Your task to perform on an android device: toggle sleep mode Image 0: 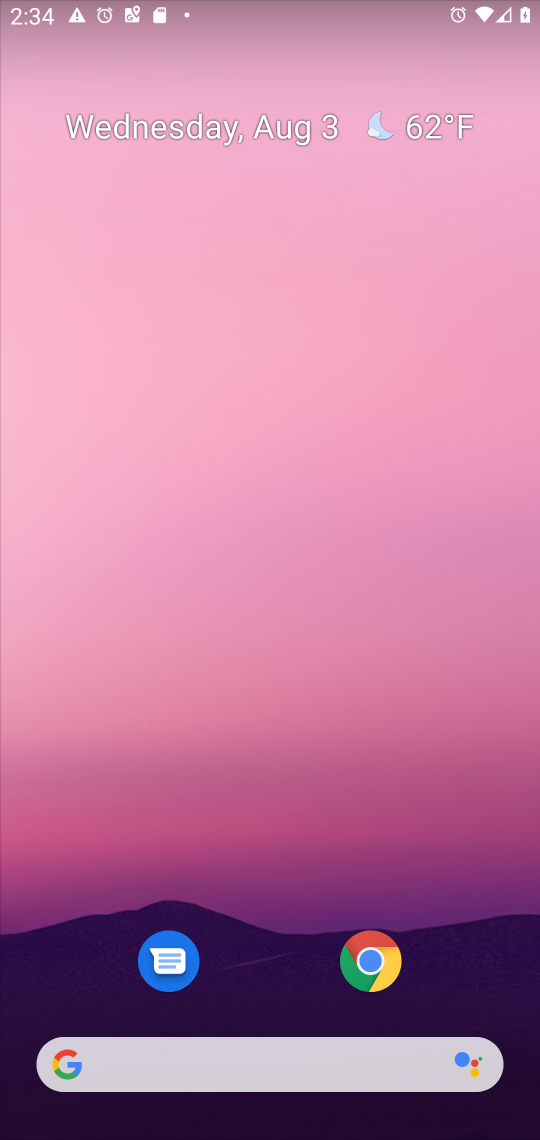
Step 0: drag from (276, 1002) to (265, 87)
Your task to perform on an android device: toggle sleep mode Image 1: 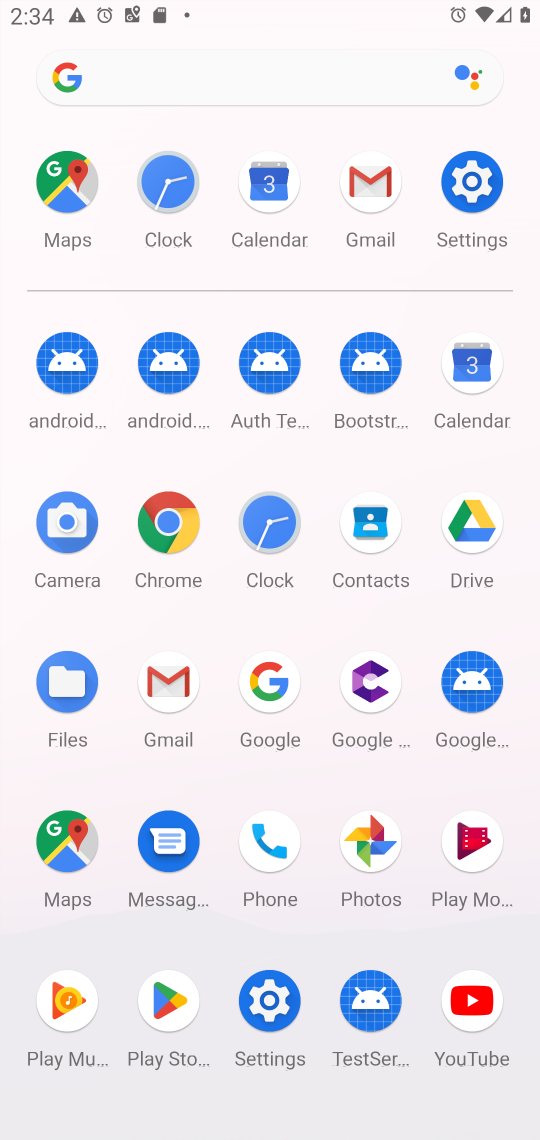
Step 1: click (466, 178)
Your task to perform on an android device: toggle sleep mode Image 2: 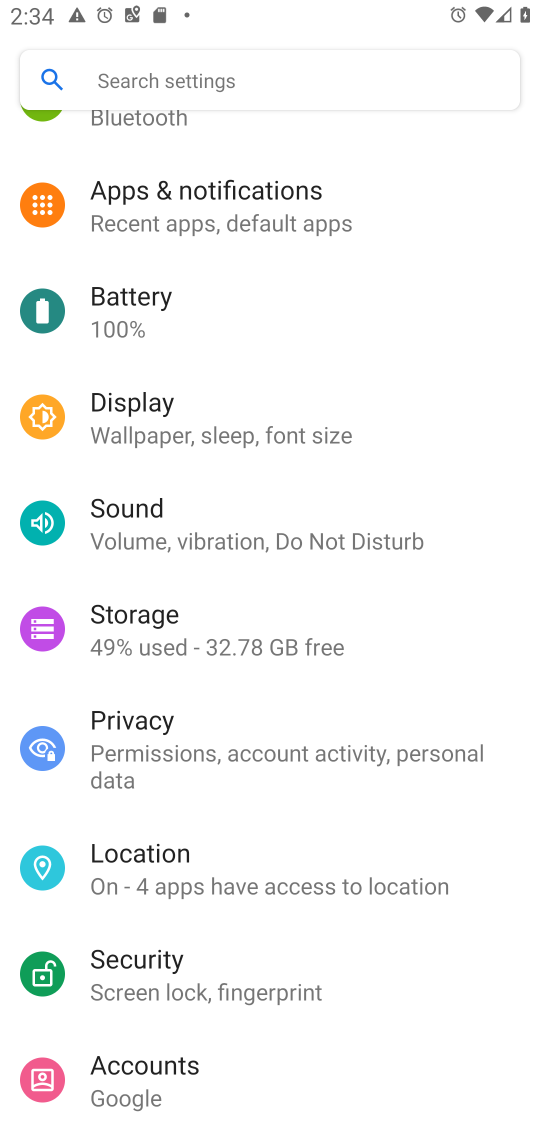
Step 2: click (129, 429)
Your task to perform on an android device: toggle sleep mode Image 3: 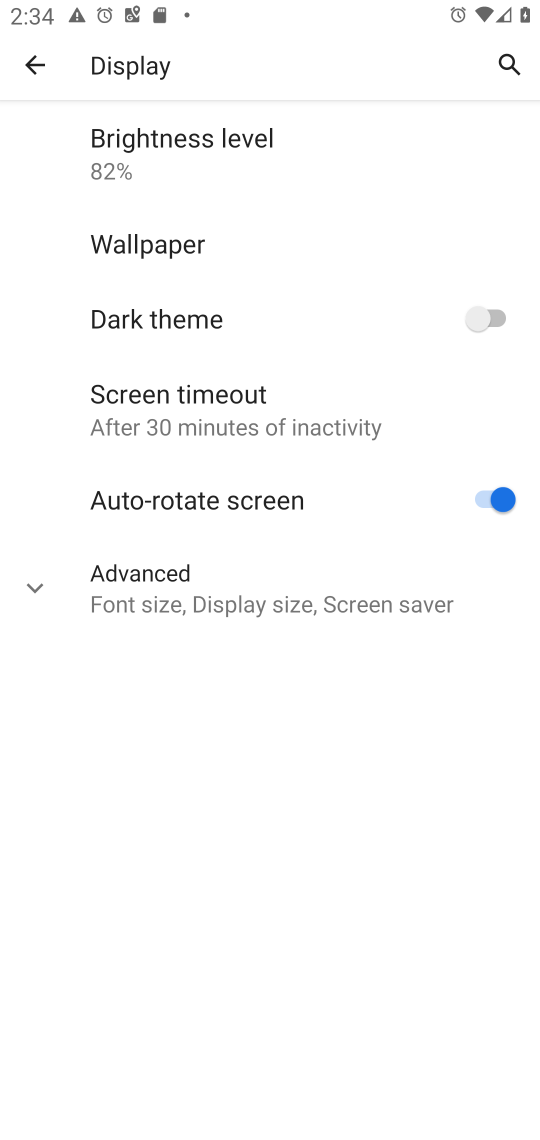
Step 3: click (33, 596)
Your task to perform on an android device: toggle sleep mode Image 4: 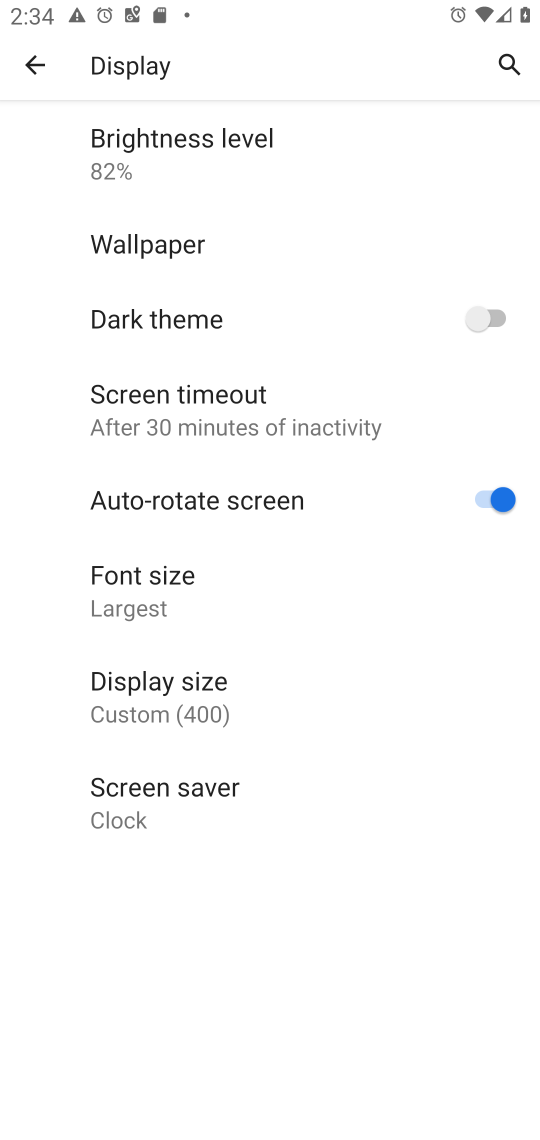
Step 4: task complete